Your task to perform on an android device: Search for vegetarian restaurants on Maps Image 0: 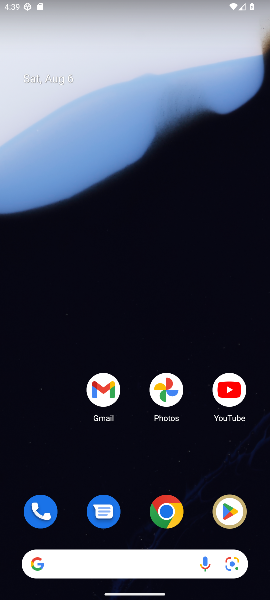
Step 0: drag from (131, 511) to (145, 3)
Your task to perform on an android device: Search for vegetarian restaurants on Maps Image 1: 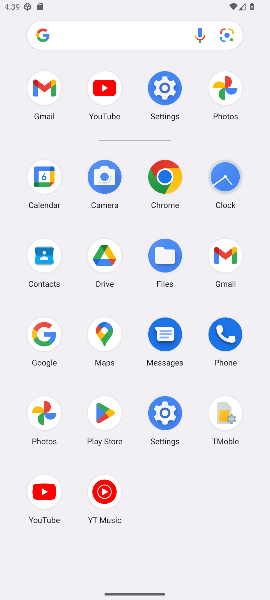
Step 1: click (105, 347)
Your task to perform on an android device: Search for vegetarian restaurants on Maps Image 2: 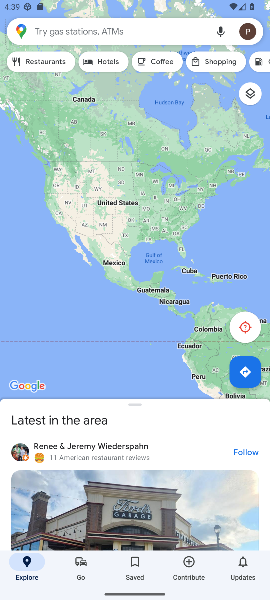
Step 2: click (93, 22)
Your task to perform on an android device: Search for vegetarian restaurants on Maps Image 3: 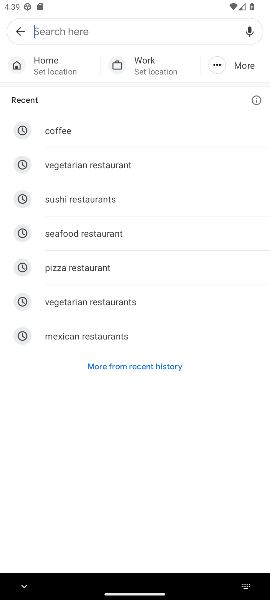
Step 3: type "vegetarian restaurants"
Your task to perform on an android device: Search for vegetarian restaurants on Maps Image 4: 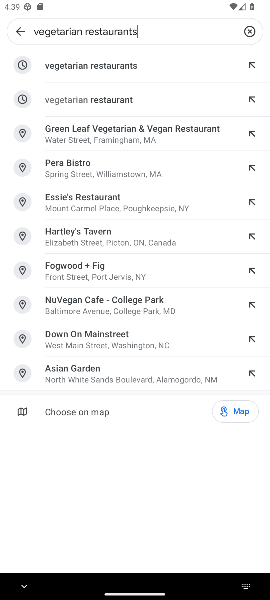
Step 4: click (96, 68)
Your task to perform on an android device: Search for vegetarian restaurants on Maps Image 5: 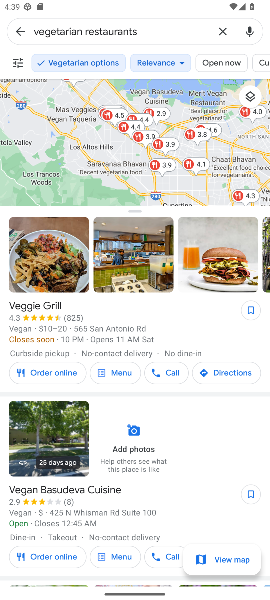
Step 5: task complete